Your task to perform on an android device: Go to calendar. Show me events next week Image 0: 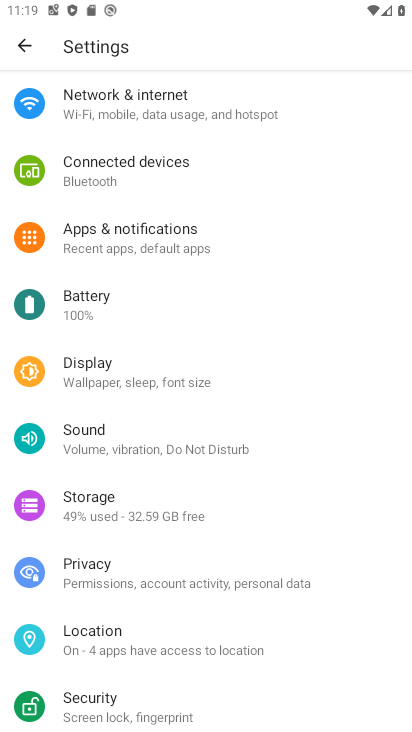
Step 0: press back button
Your task to perform on an android device: Go to calendar. Show me events next week Image 1: 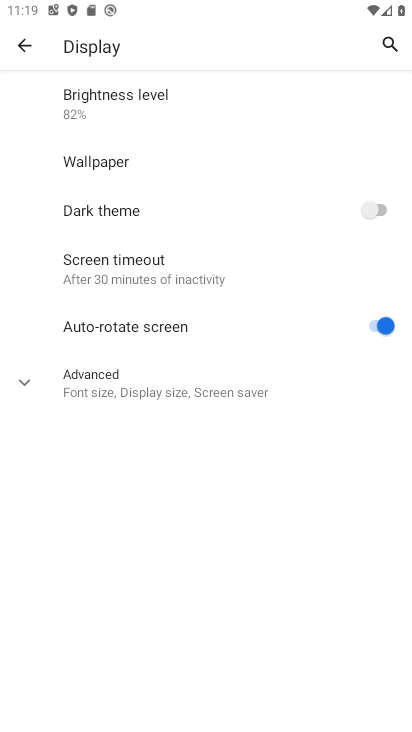
Step 1: press back button
Your task to perform on an android device: Go to calendar. Show me events next week Image 2: 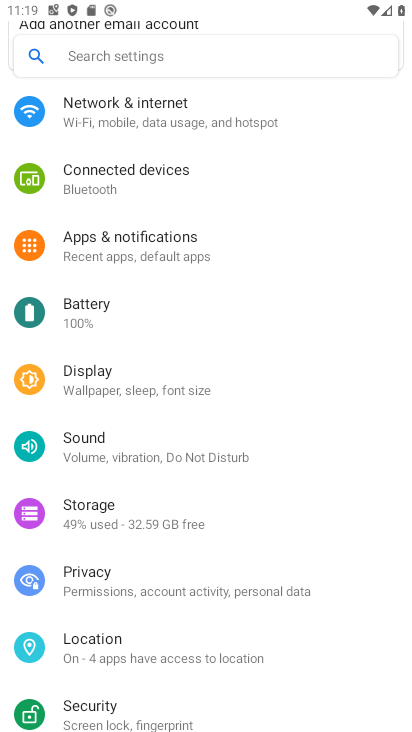
Step 2: press back button
Your task to perform on an android device: Go to calendar. Show me events next week Image 3: 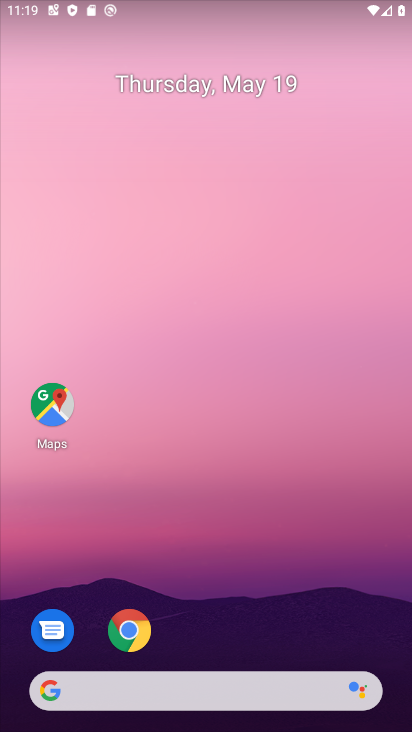
Step 3: drag from (270, 605) to (194, 111)
Your task to perform on an android device: Go to calendar. Show me events next week Image 4: 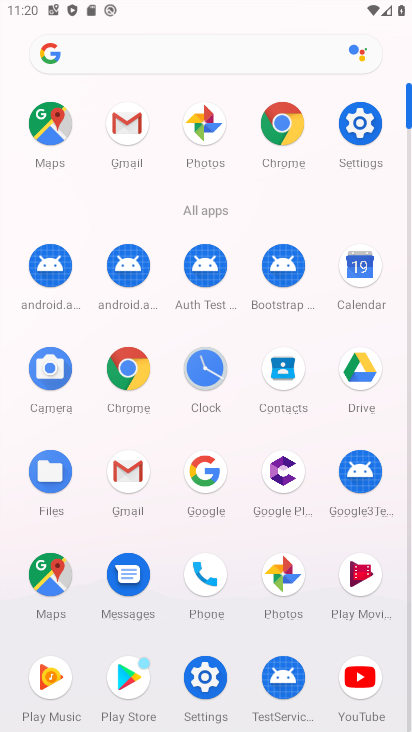
Step 4: click (361, 264)
Your task to perform on an android device: Go to calendar. Show me events next week Image 5: 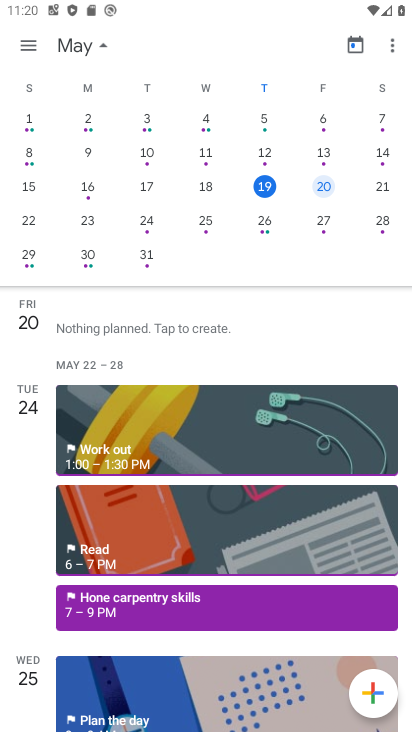
Step 5: click (356, 52)
Your task to perform on an android device: Go to calendar. Show me events next week Image 6: 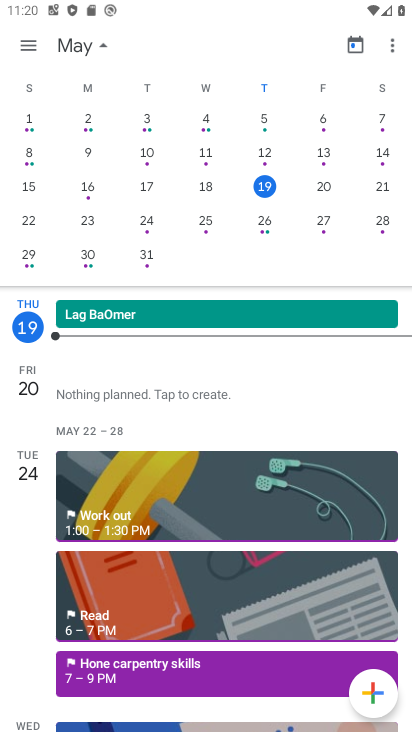
Step 6: click (155, 209)
Your task to perform on an android device: Go to calendar. Show me events next week Image 7: 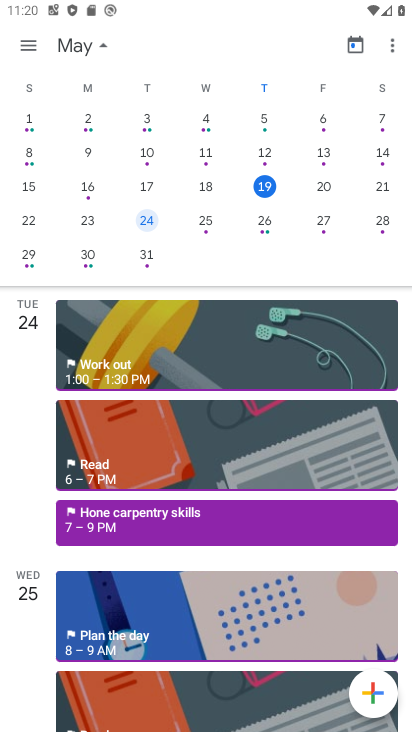
Step 7: click (34, 43)
Your task to perform on an android device: Go to calendar. Show me events next week Image 8: 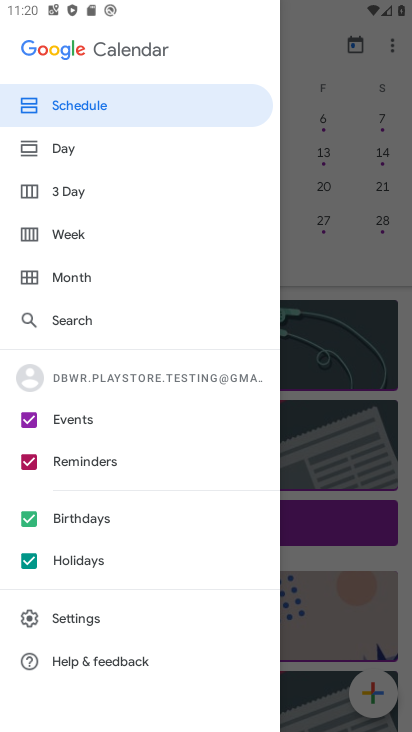
Step 8: click (80, 227)
Your task to perform on an android device: Go to calendar. Show me events next week Image 9: 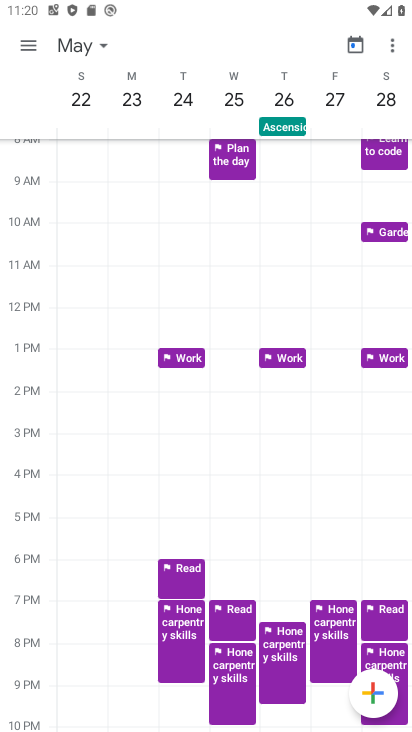
Step 9: task complete